Your task to perform on an android device: Go to Yahoo.com Image 0: 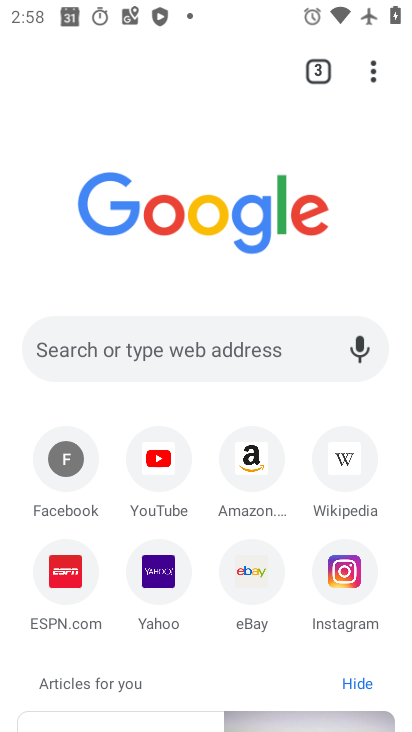
Step 0: press home button
Your task to perform on an android device: Go to Yahoo.com Image 1: 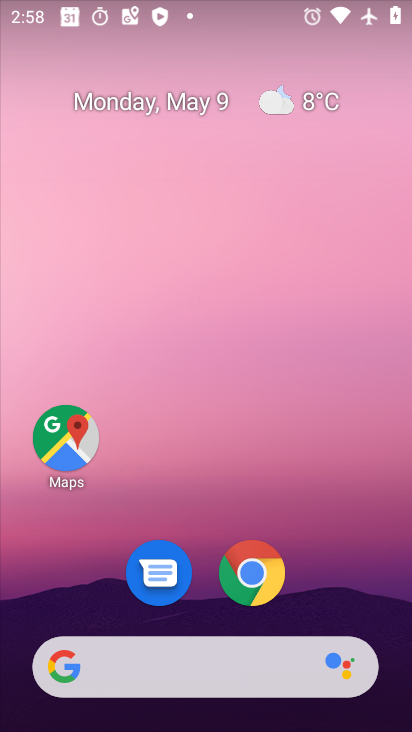
Step 1: click (251, 585)
Your task to perform on an android device: Go to Yahoo.com Image 2: 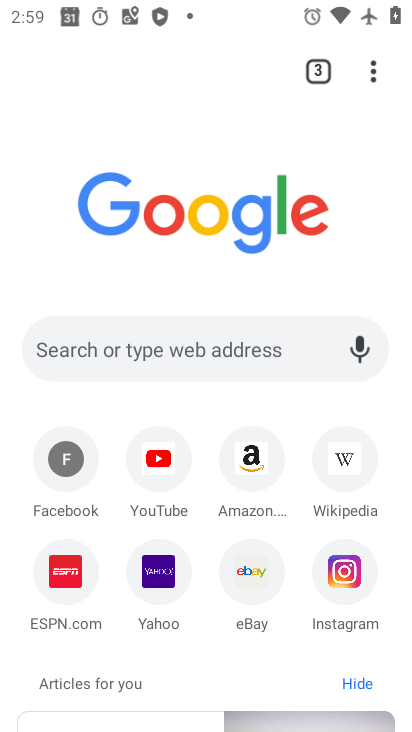
Step 2: click (154, 574)
Your task to perform on an android device: Go to Yahoo.com Image 3: 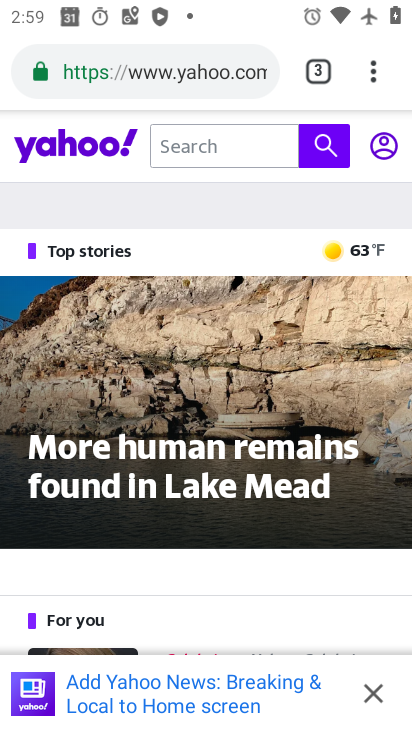
Step 3: task complete